Your task to perform on an android device: open a new tab in the chrome app Image 0: 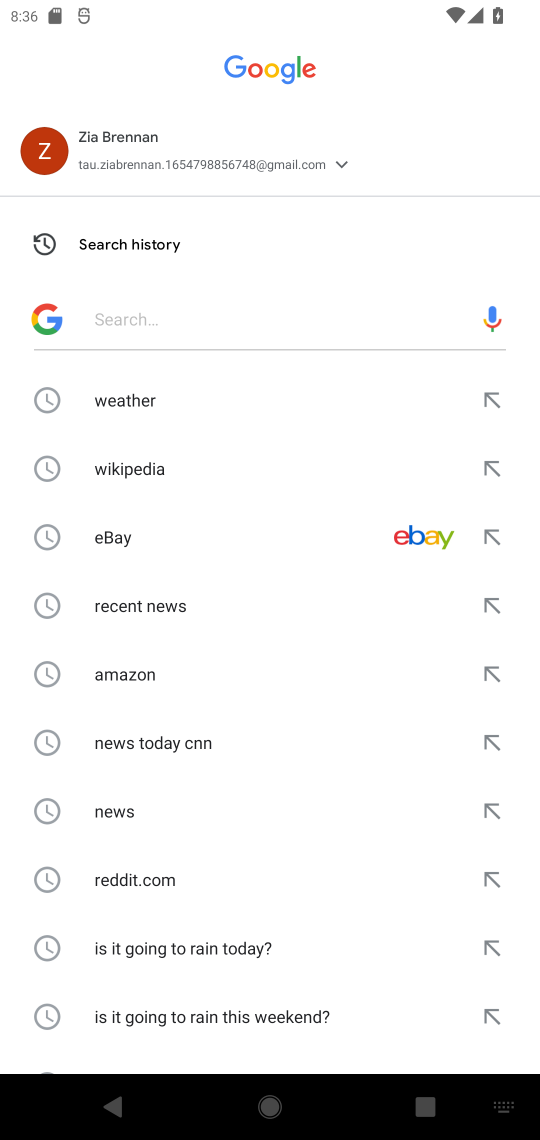
Step 0: press home button
Your task to perform on an android device: open a new tab in the chrome app Image 1: 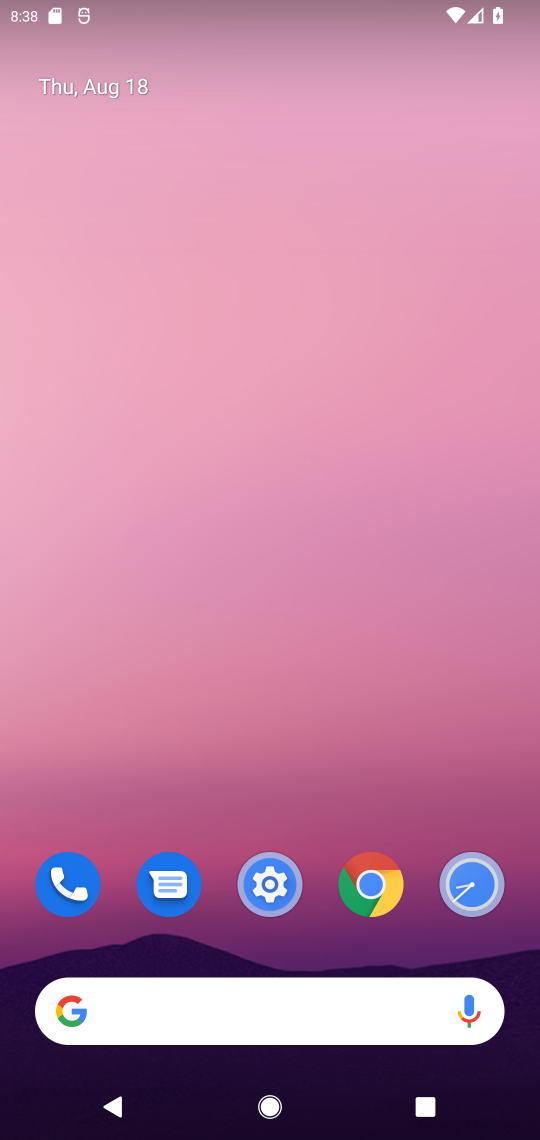
Step 1: click (383, 874)
Your task to perform on an android device: open a new tab in the chrome app Image 2: 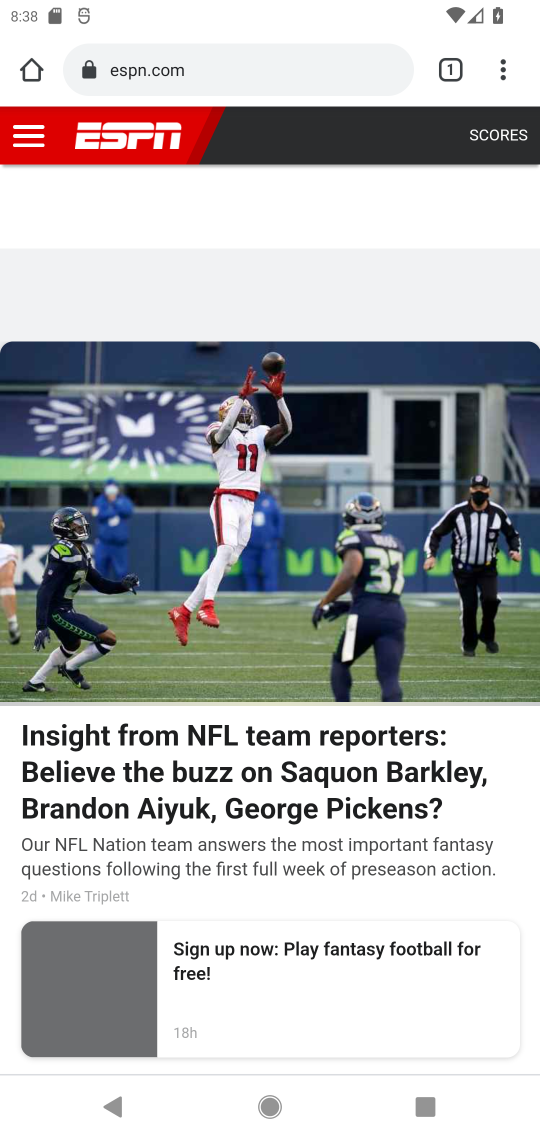
Step 2: click (522, 71)
Your task to perform on an android device: open a new tab in the chrome app Image 3: 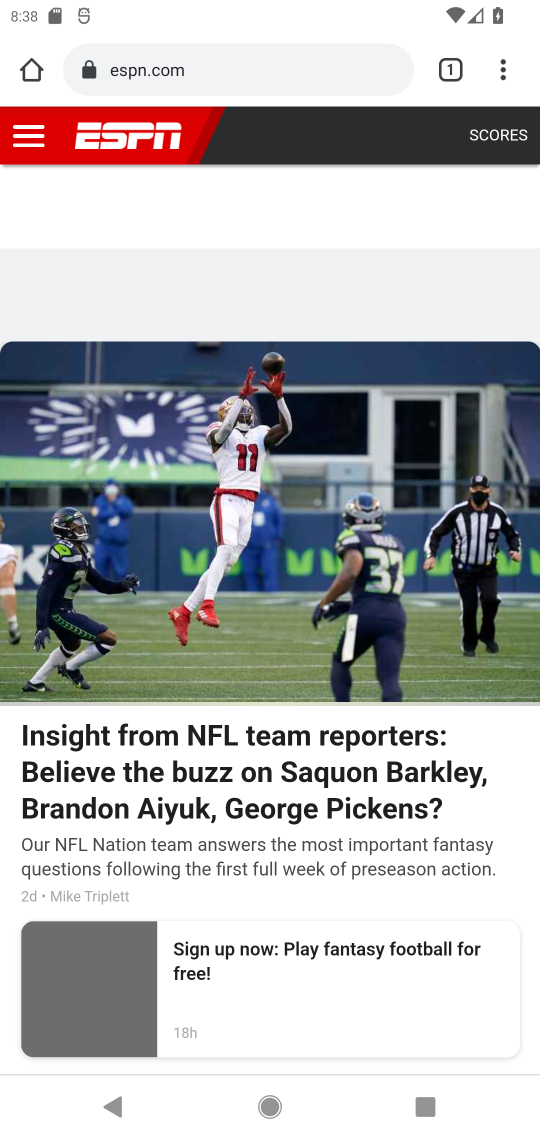
Step 3: click (494, 75)
Your task to perform on an android device: open a new tab in the chrome app Image 4: 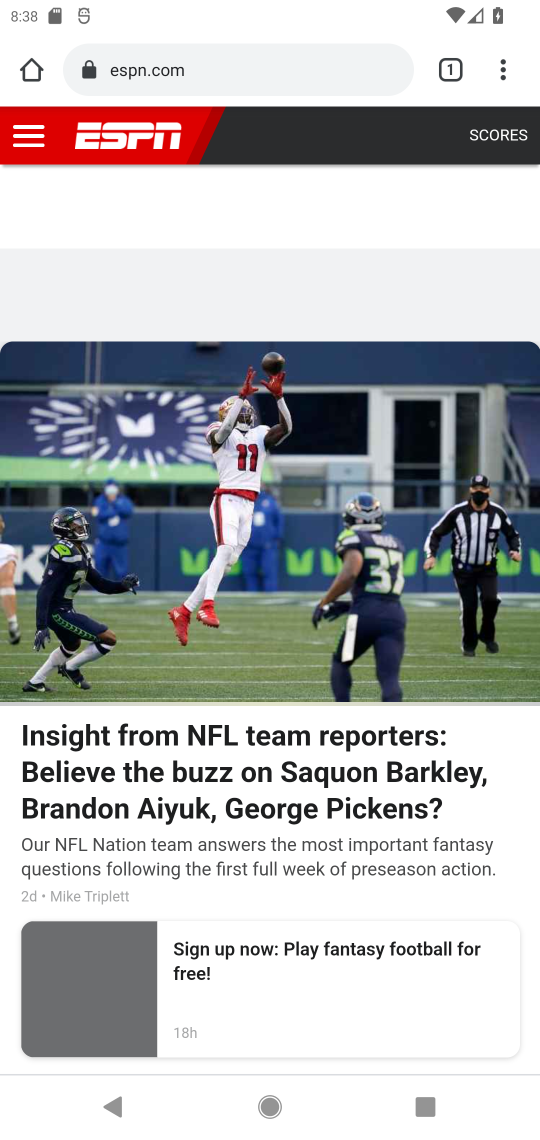
Step 4: click (494, 65)
Your task to perform on an android device: open a new tab in the chrome app Image 5: 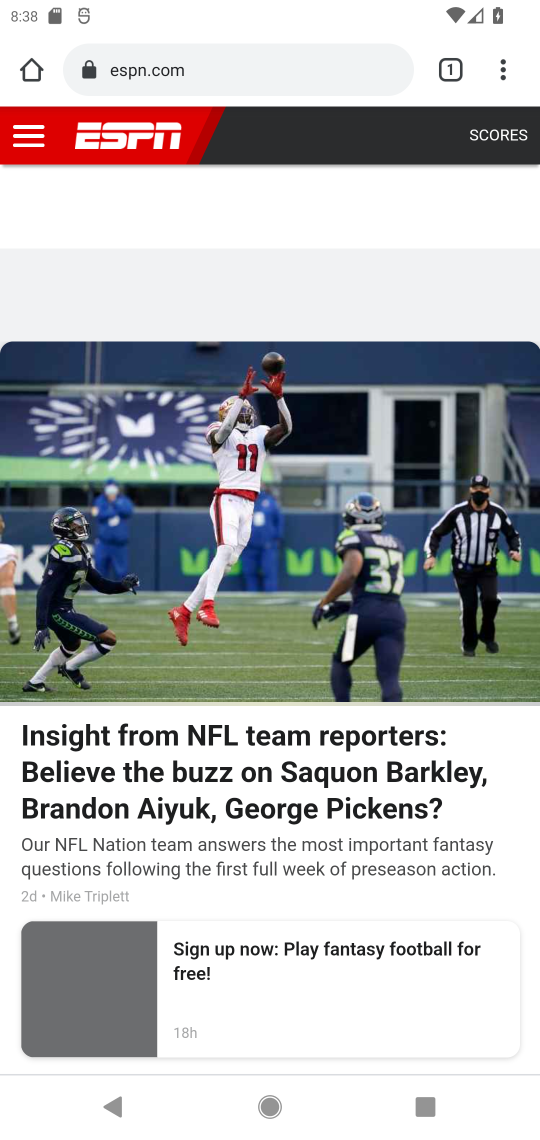
Step 5: click (493, 61)
Your task to perform on an android device: open a new tab in the chrome app Image 6: 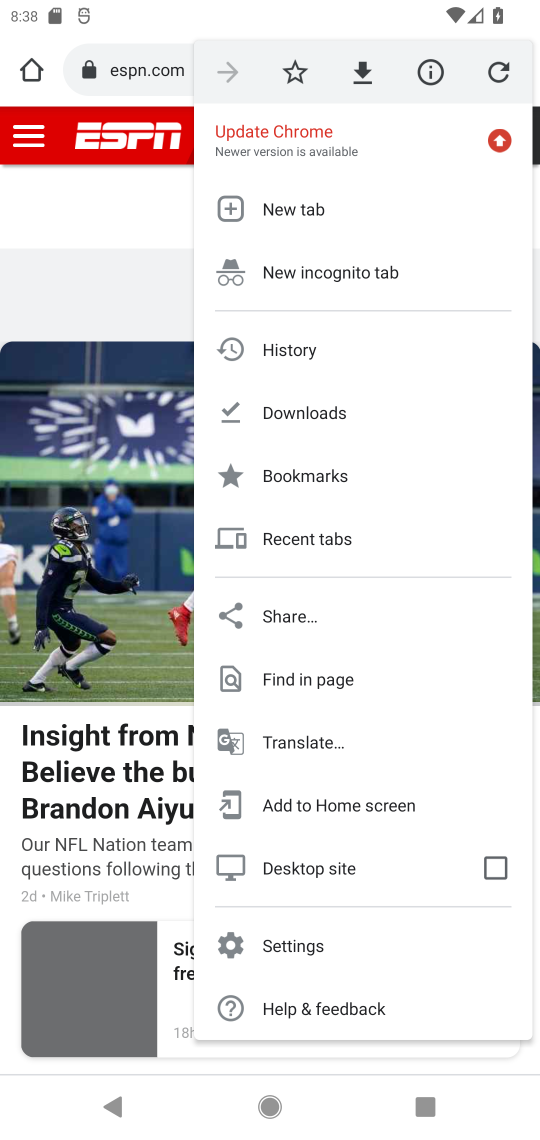
Step 6: click (309, 201)
Your task to perform on an android device: open a new tab in the chrome app Image 7: 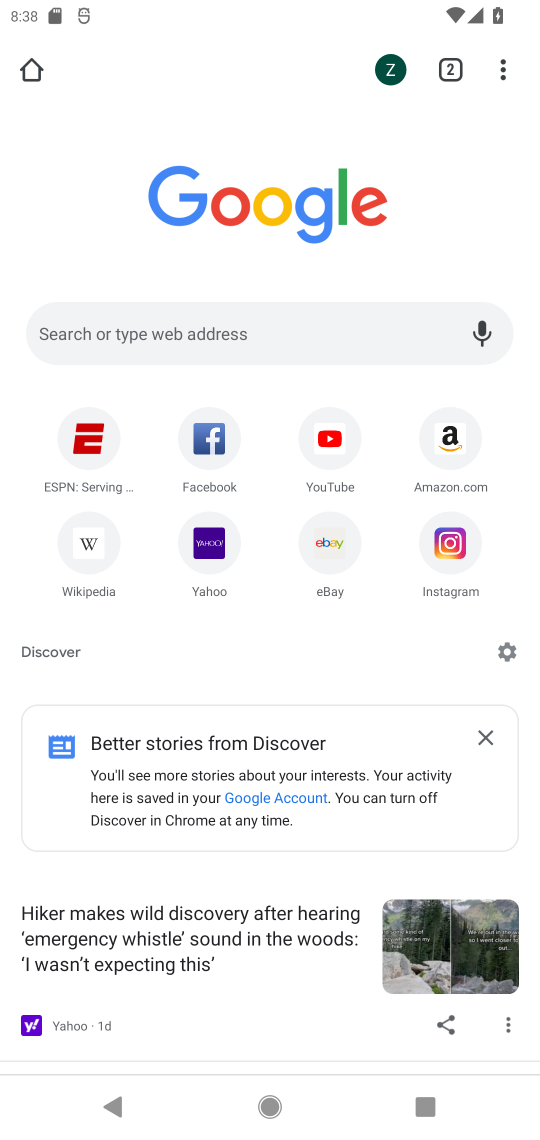
Step 7: task complete